Your task to perform on an android device: empty trash in google photos Image 0: 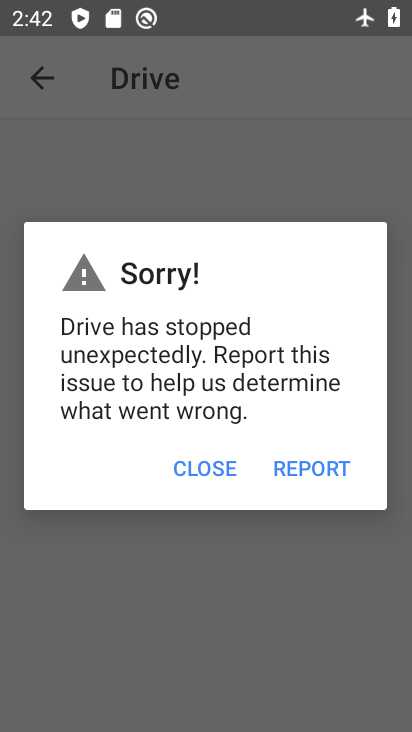
Step 0: press home button
Your task to perform on an android device: empty trash in google photos Image 1: 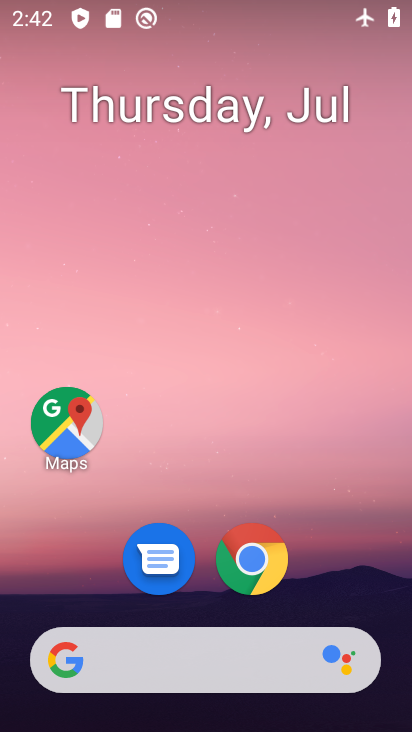
Step 1: drag from (253, 637) to (264, 99)
Your task to perform on an android device: empty trash in google photos Image 2: 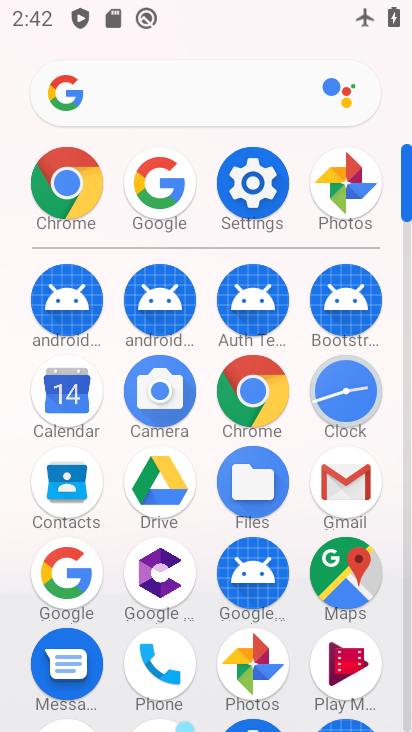
Step 2: click (251, 661)
Your task to perform on an android device: empty trash in google photos Image 3: 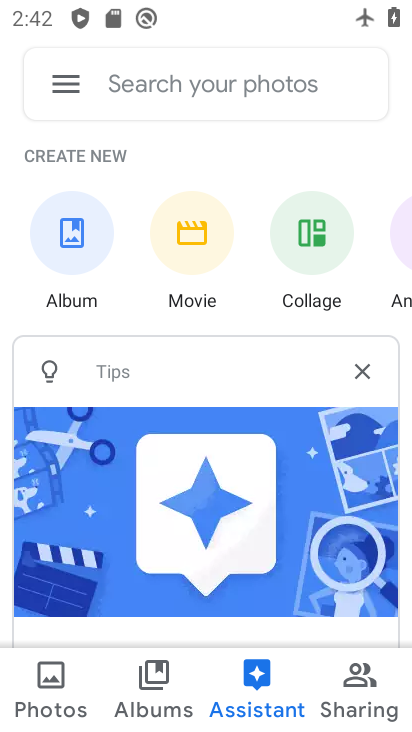
Step 3: click (59, 88)
Your task to perform on an android device: empty trash in google photos Image 4: 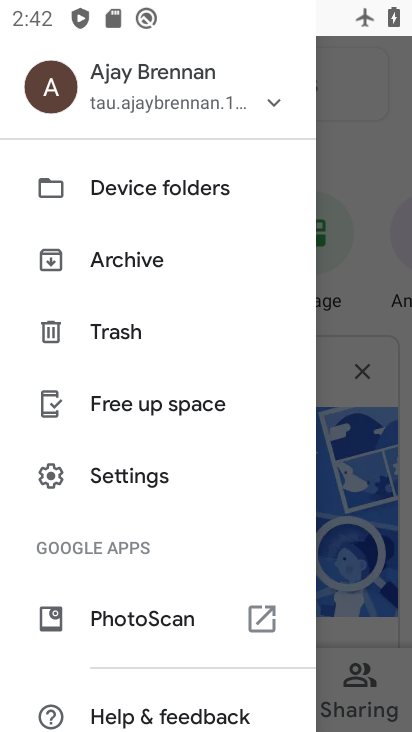
Step 4: click (98, 346)
Your task to perform on an android device: empty trash in google photos Image 5: 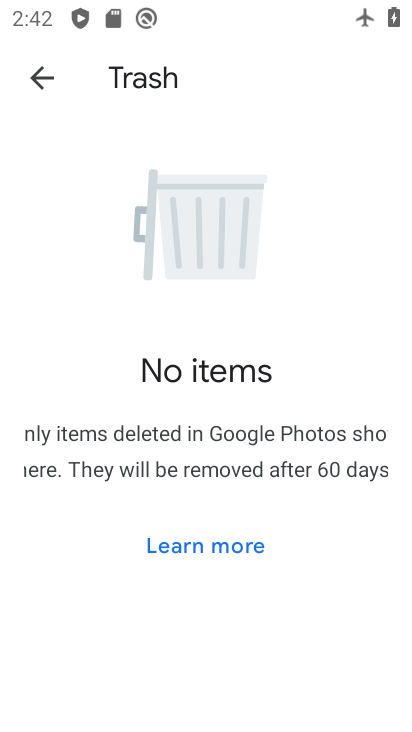
Step 5: task complete